Your task to perform on an android device: snooze an email in the gmail app Image 0: 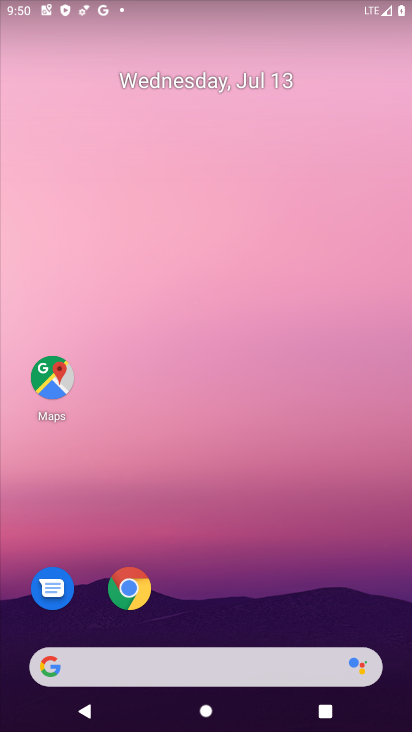
Step 0: drag from (233, 557) to (237, 140)
Your task to perform on an android device: snooze an email in the gmail app Image 1: 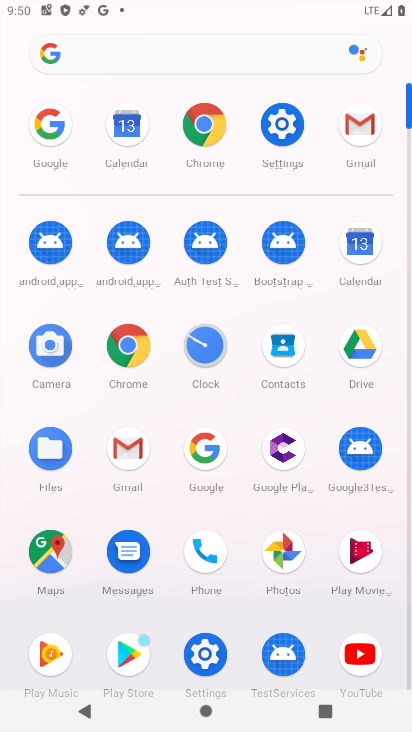
Step 1: click (363, 127)
Your task to perform on an android device: snooze an email in the gmail app Image 2: 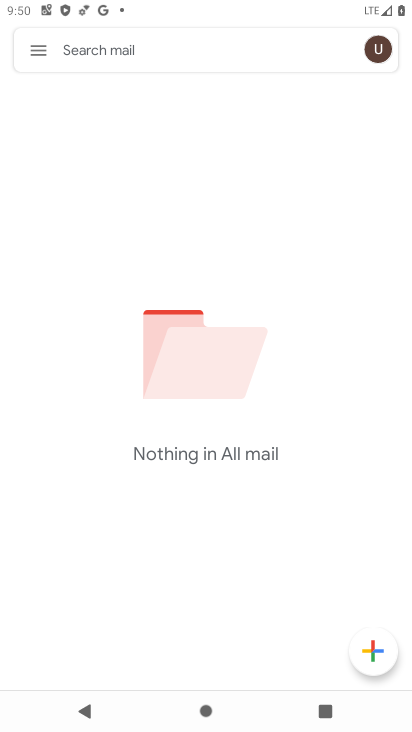
Step 2: task complete